Your task to perform on an android device: What is the recent news? Image 0: 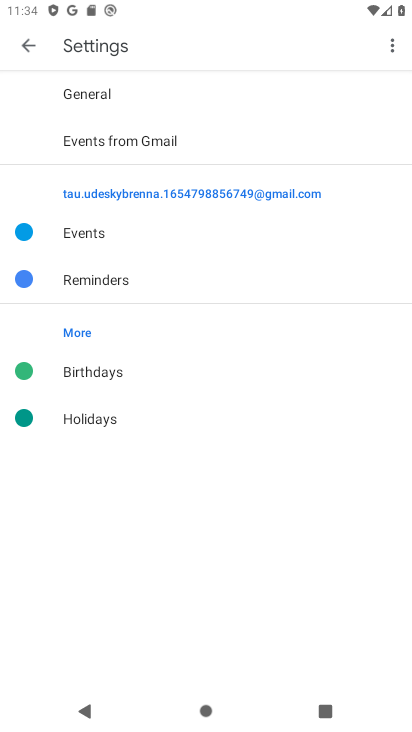
Step 0: press home button
Your task to perform on an android device: What is the recent news? Image 1: 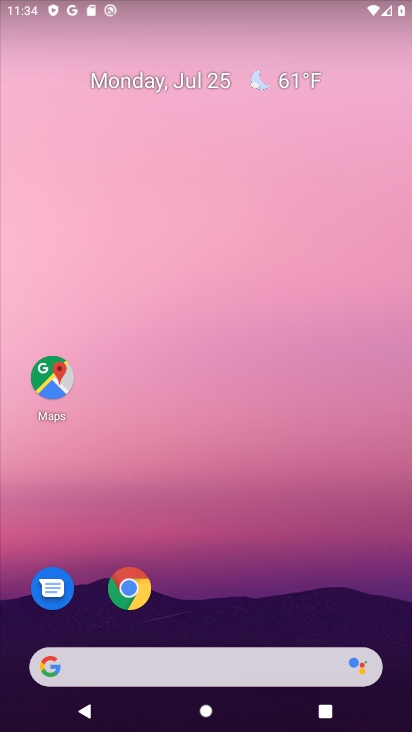
Step 1: task complete